Your task to perform on an android device: Go to internet settings Image 0: 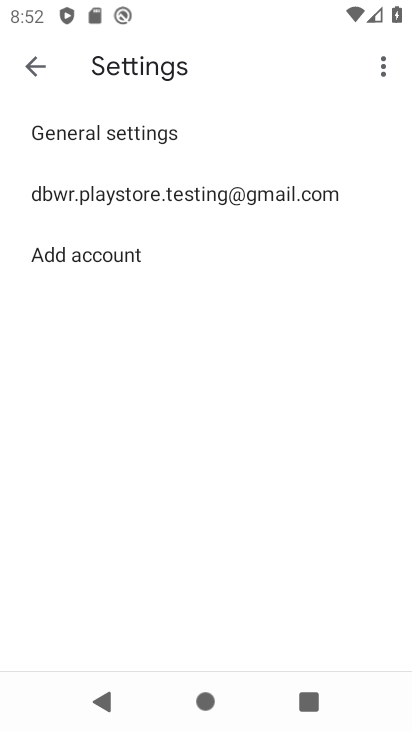
Step 0: press home button
Your task to perform on an android device: Go to internet settings Image 1: 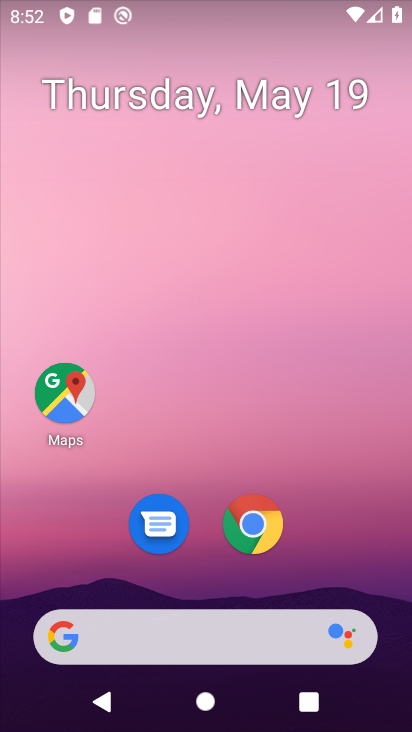
Step 1: drag from (330, 550) to (312, 108)
Your task to perform on an android device: Go to internet settings Image 2: 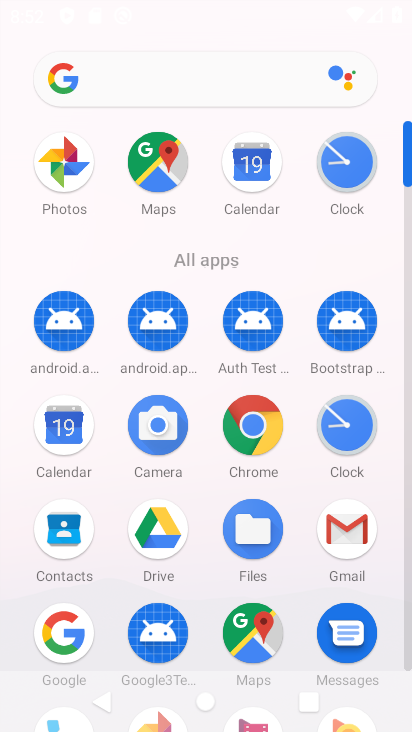
Step 2: drag from (203, 470) to (193, 226)
Your task to perform on an android device: Go to internet settings Image 3: 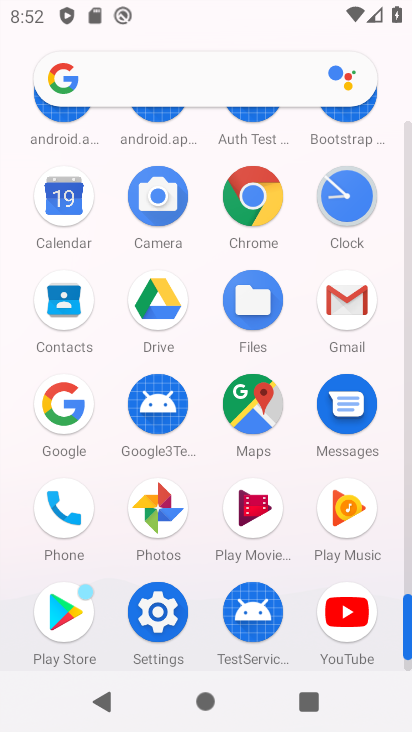
Step 3: click (167, 605)
Your task to perform on an android device: Go to internet settings Image 4: 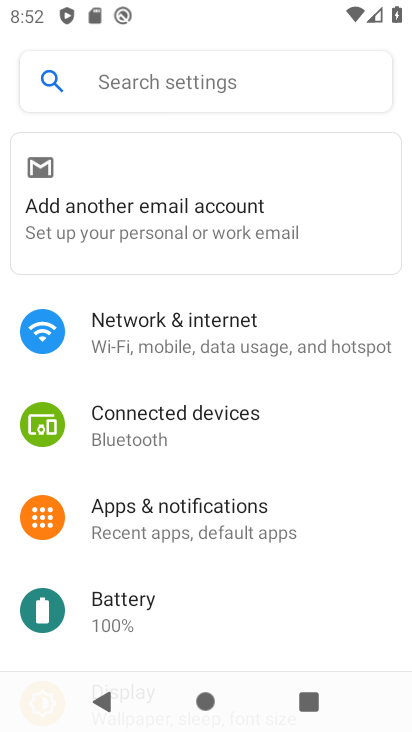
Step 4: click (231, 332)
Your task to perform on an android device: Go to internet settings Image 5: 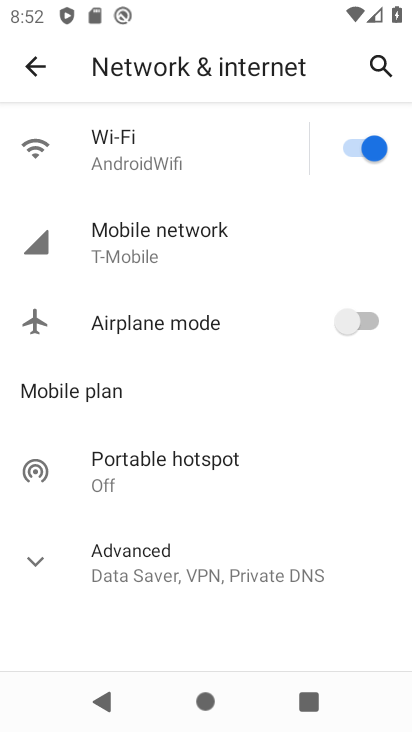
Step 5: task complete